Your task to perform on an android device: move a message to another label in the gmail app Image 0: 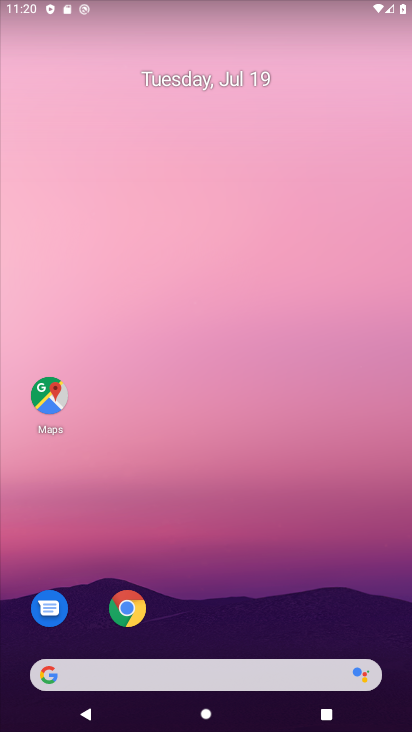
Step 0: drag from (244, 641) to (351, 82)
Your task to perform on an android device: move a message to another label in the gmail app Image 1: 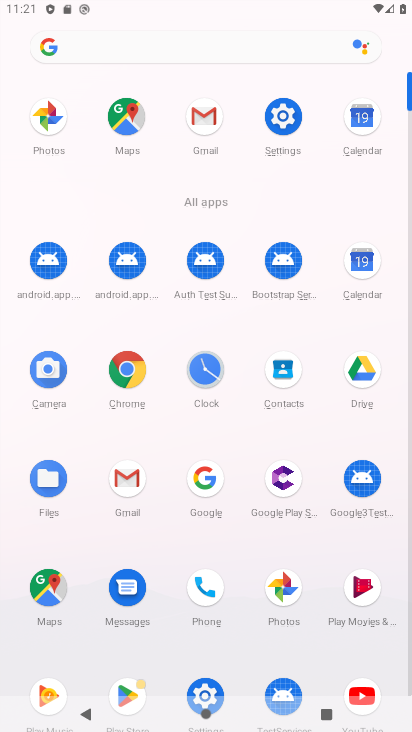
Step 1: click (196, 117)
Your task to perform on an android device: move a message to another label in the gmail app Image 2: 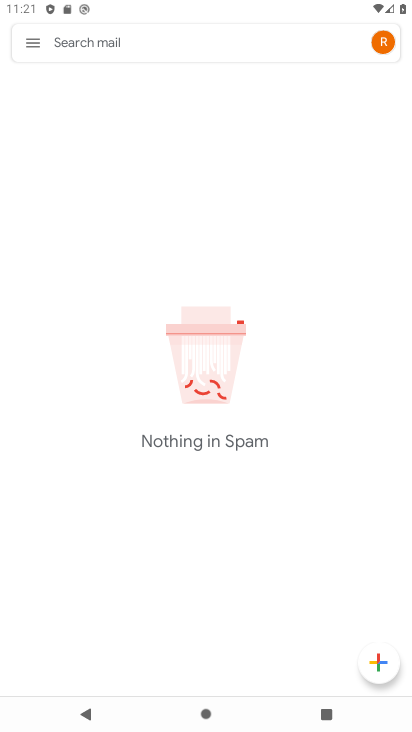
Step 2: click (33, 37)
Your task to perform on an android device: move a message to another label in the gmail app Image 3: 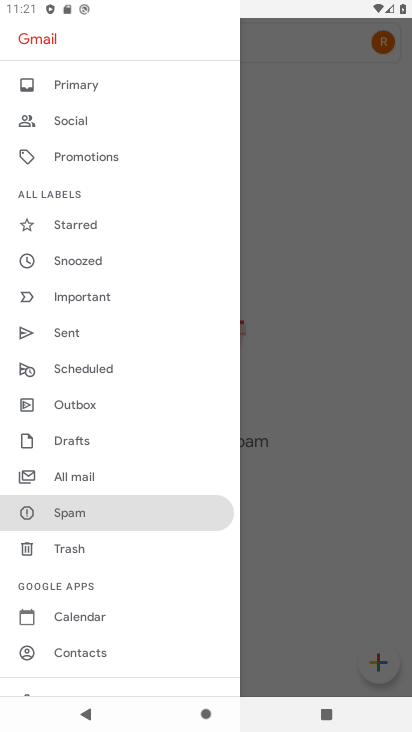
Step 3: click (63, 476)
Your task to perform on an android device: move a message to another label in the gmail app Image 4: 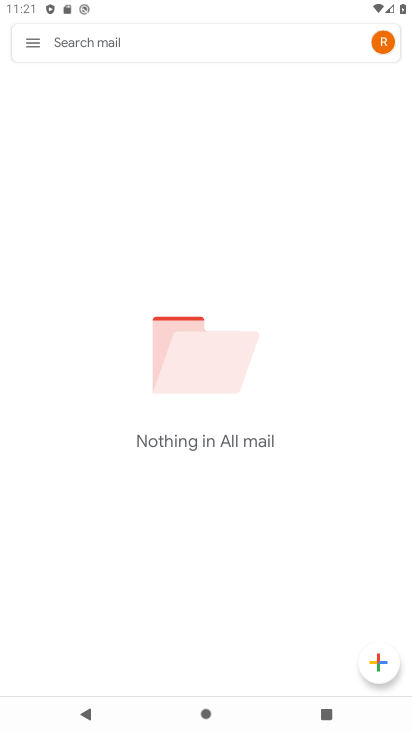
Step 4: task complete